Your task to perform on an android device: install app "Walmart Shopping & Grocery" Image 0: 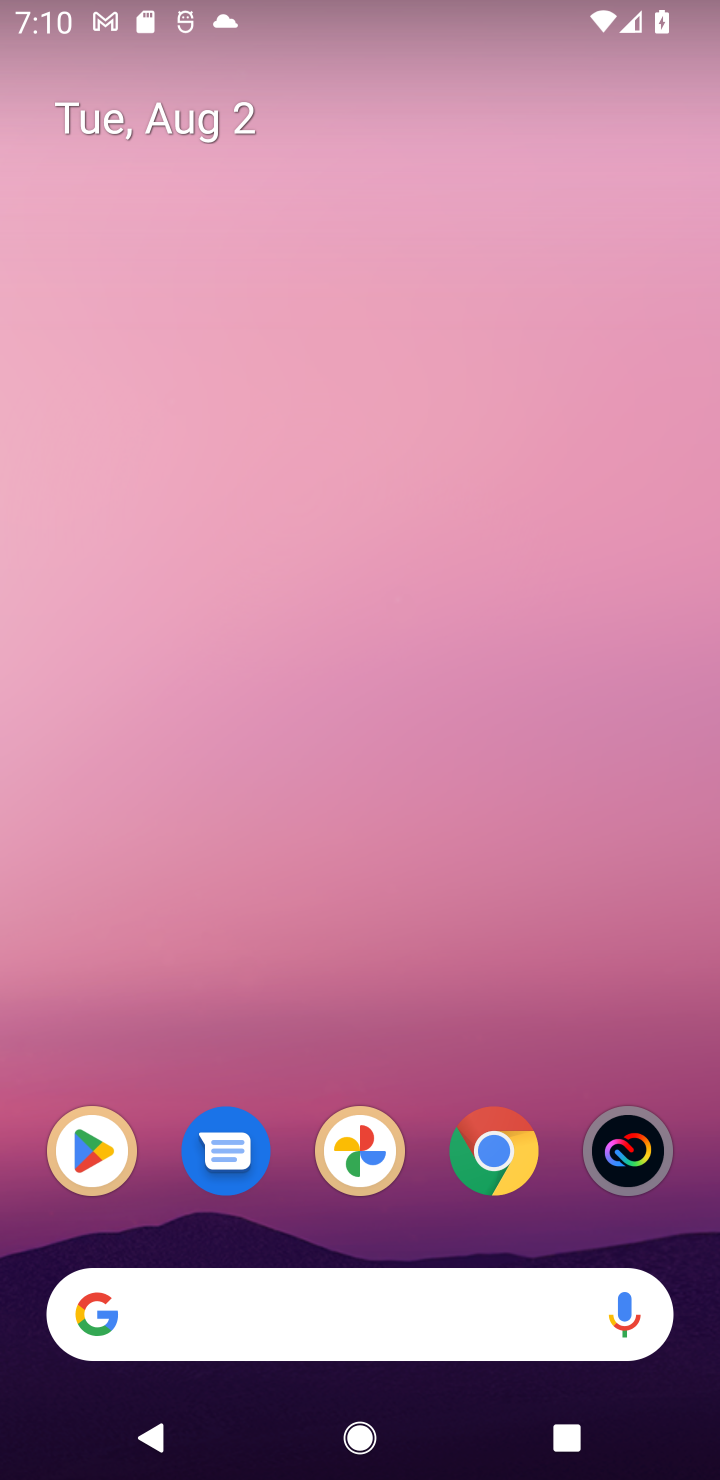
Step 0: click (111, 1165)
Your task to perform on an android device: install app "Walmart Shopping & Grocery" Image 1: 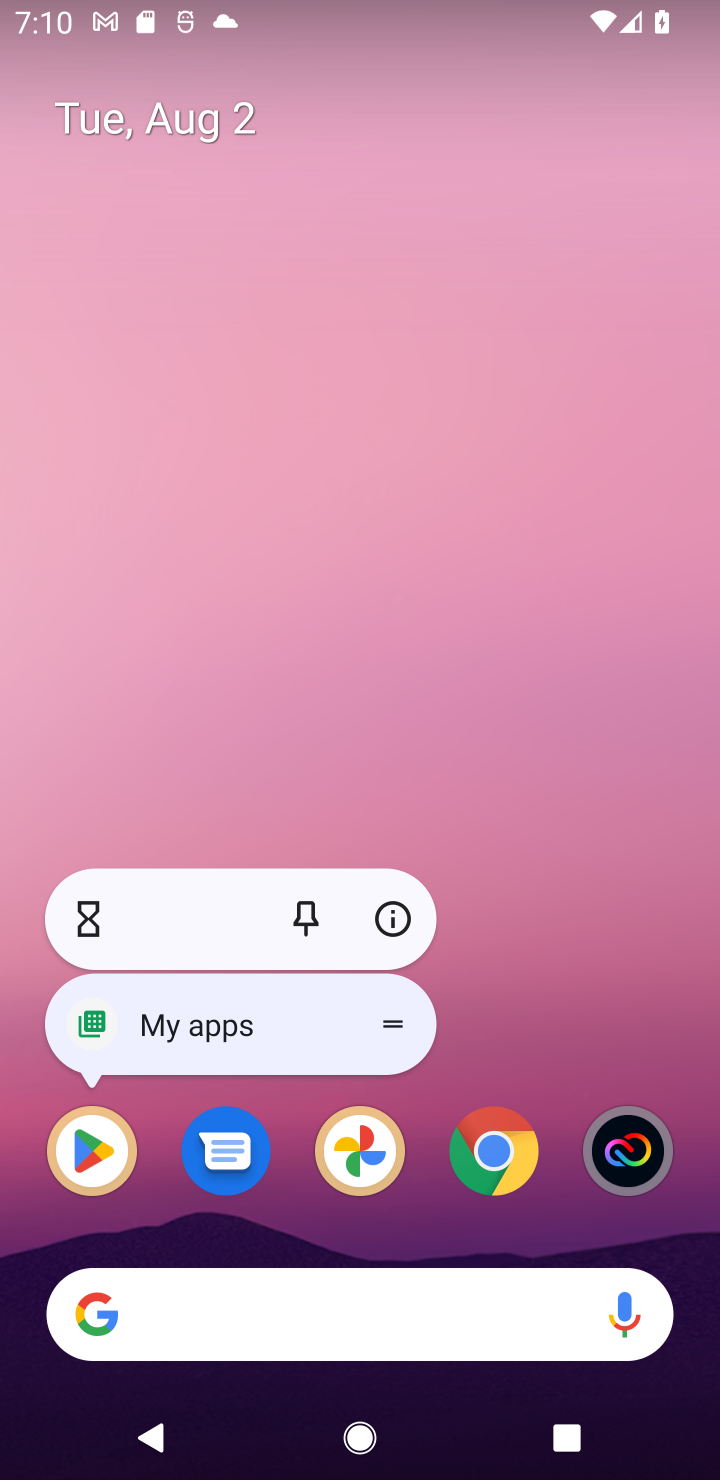
Step 1: click (66, 1161)
Your task to perform on an android device: install app "Walmart Shopping & Grocery" Image 2: 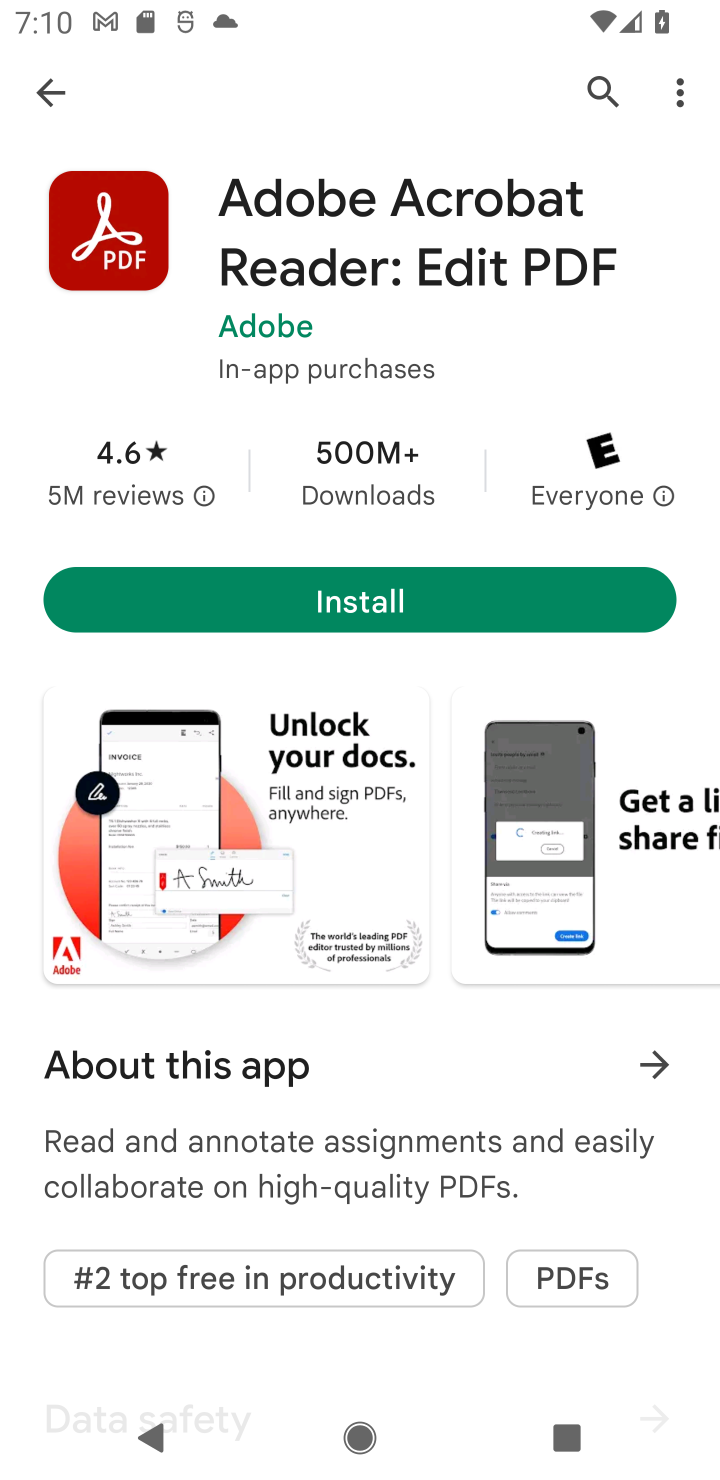
Step 2: click (619, 75)
Your task to perform on an android device: install app "Walmart Shopping & Grocery" Image 3: 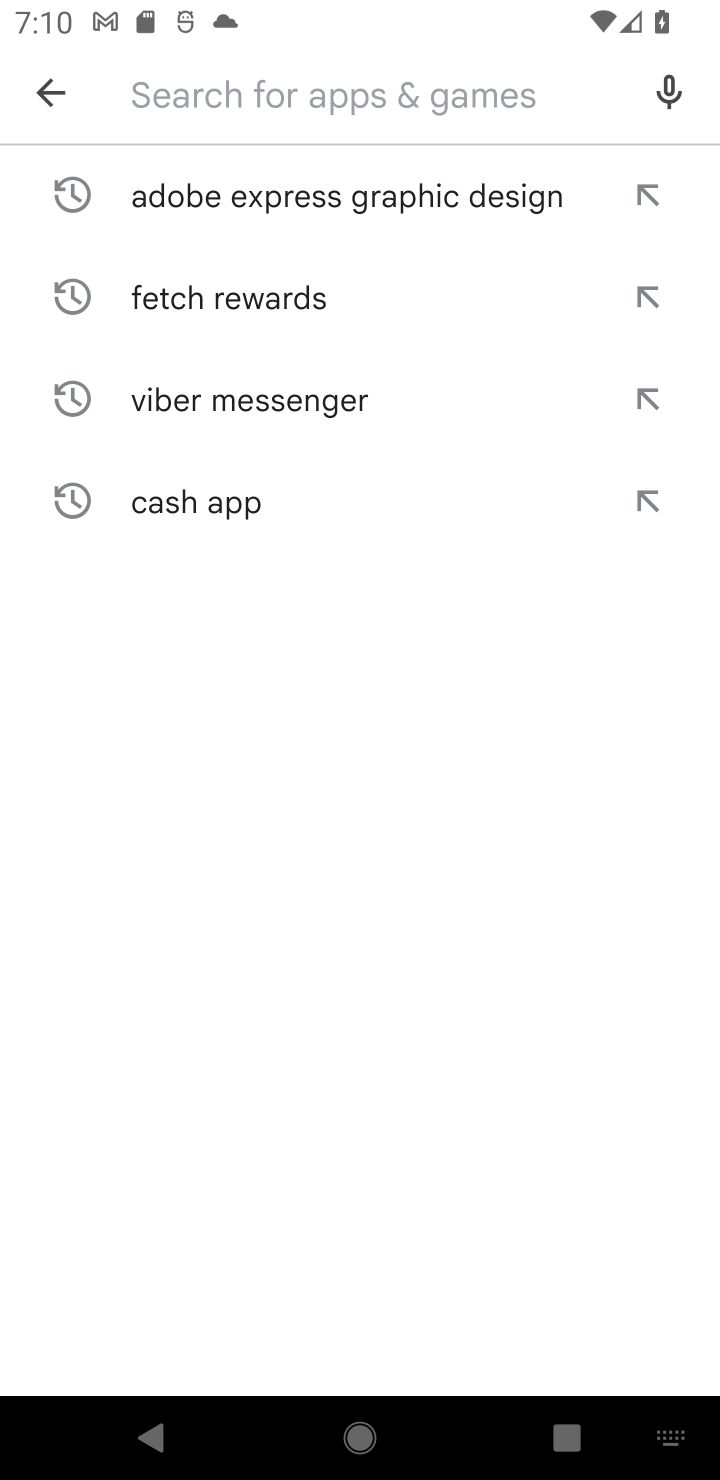
Step 3: type "Walmart Shopping & Grocery"
Your task to perform on an android device: install app "Walmart Shopping & Grocery" Image 4: 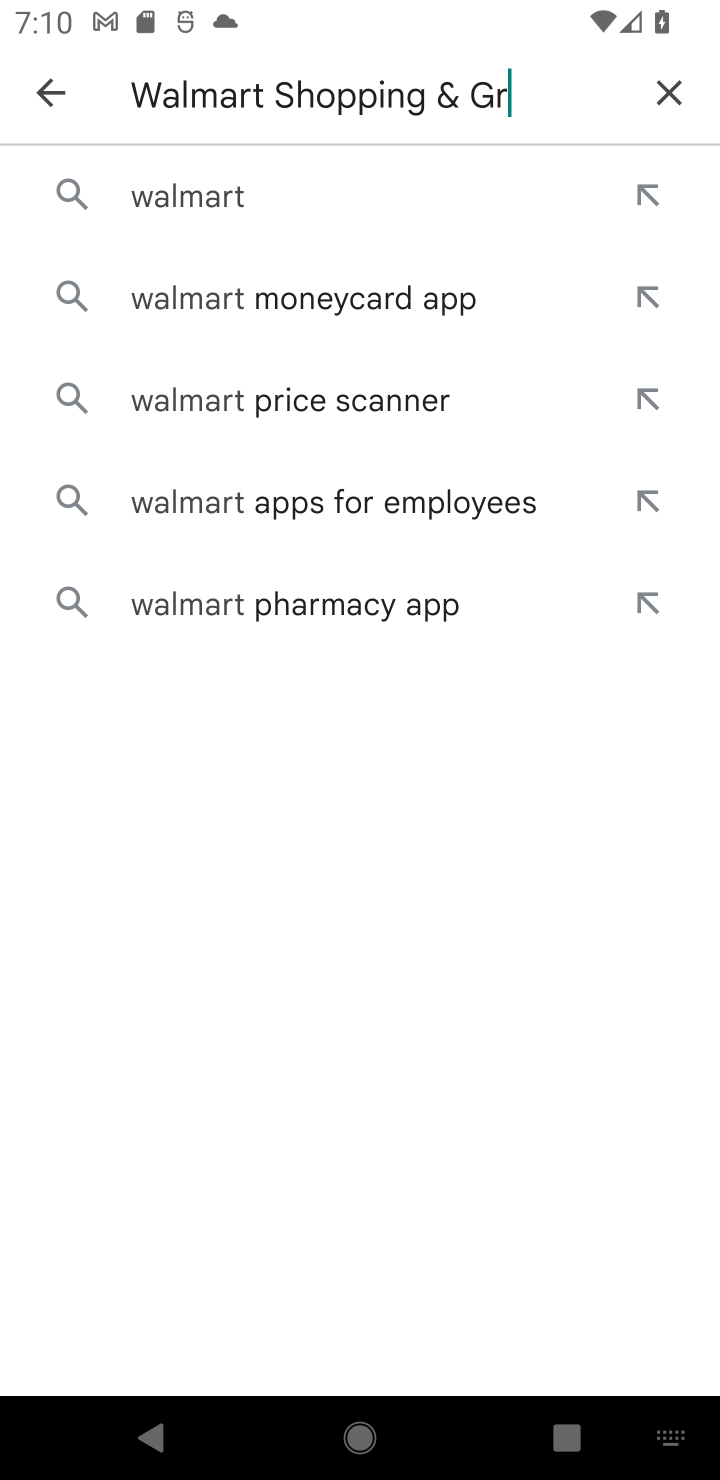
Step 4: type ""
Your task to perform on an android device: install app "Walmart Shopping & Grocery" Image 5: 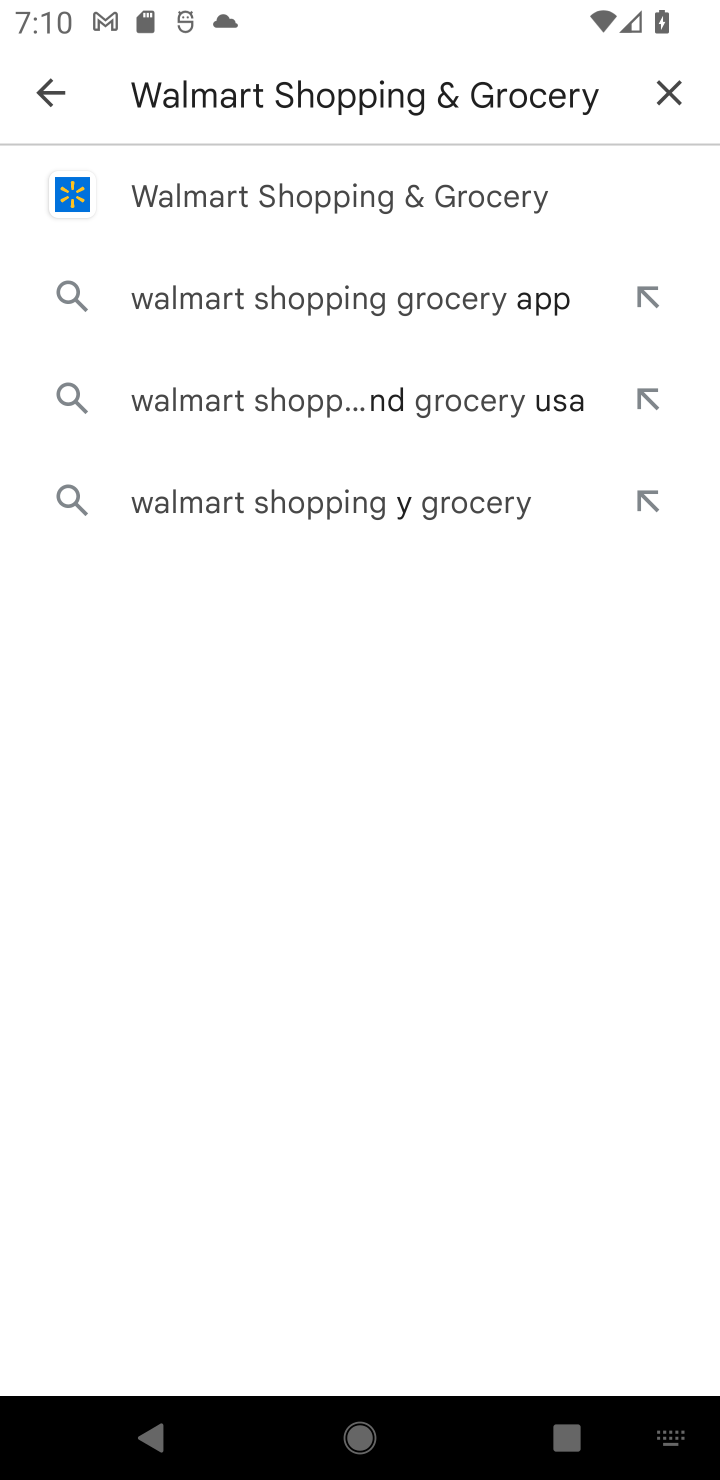
Step 5: click (201, 213)
Your task to perform on an android device: install app "Walmart Shopping & Grocery" Image 6: 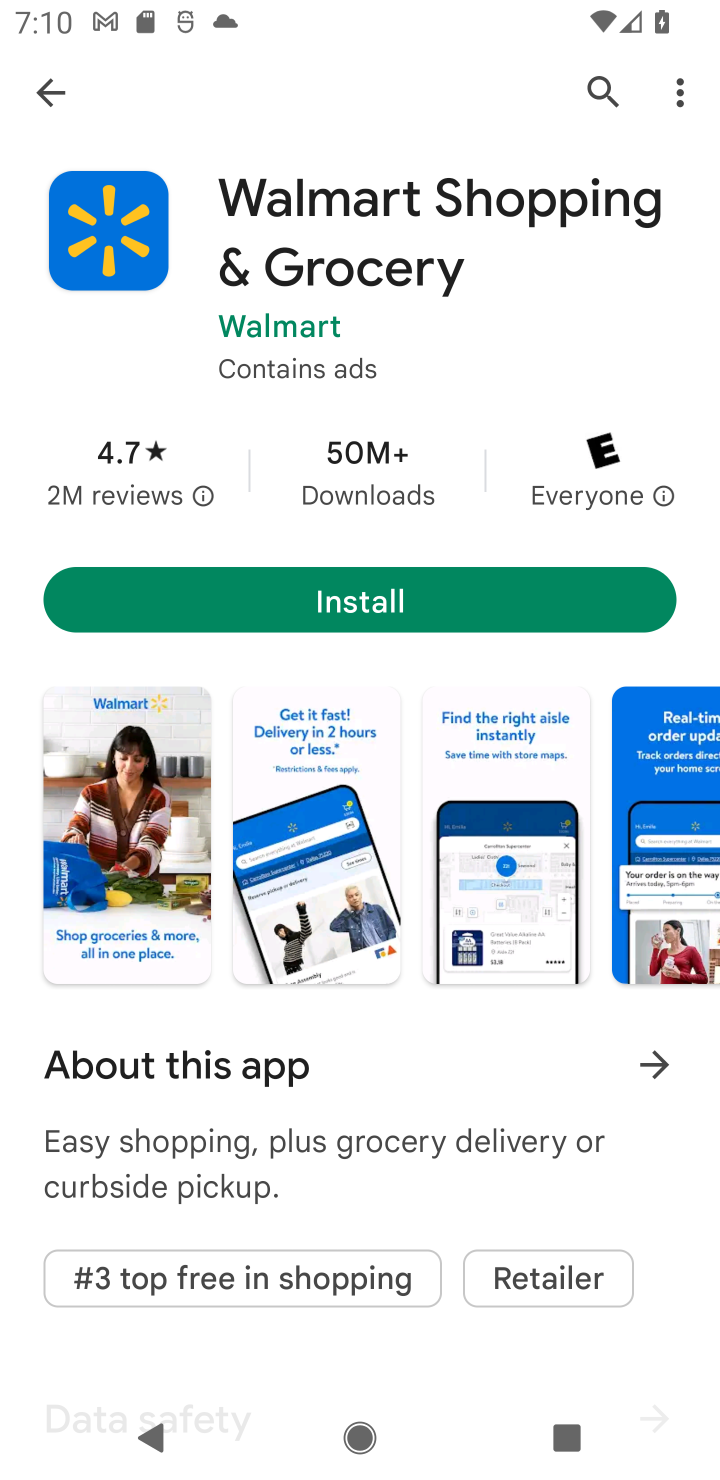
Step 6: click (343, 594)
Your task to perform on an android device: install app "Walmart Shopping & Grocery" Image 7: 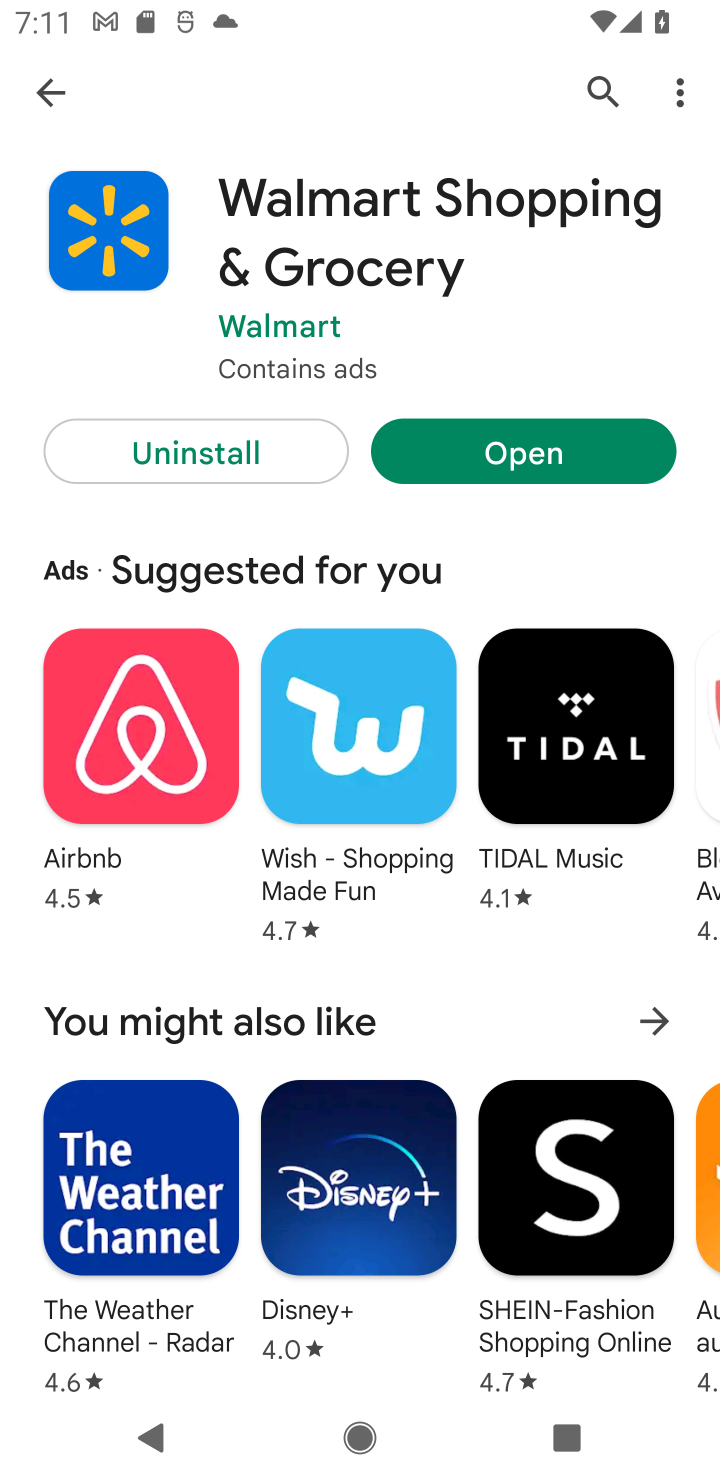
Step 7: task complete